Your task to perform on an android device: Go to Wikipedia Image 0: 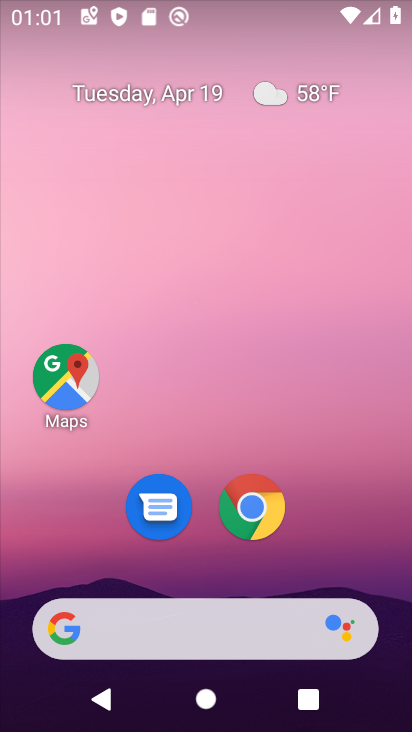
Step 0: click (255, 502)
Your task to perform on an android device: Go to Wikipedia Image 1: 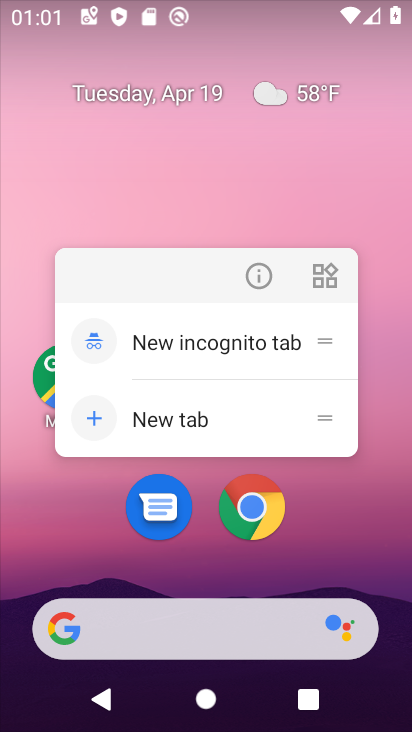
Step 1: click (262, 281)
Your task to perform on an android device: Go to Wikipedia Image 2: 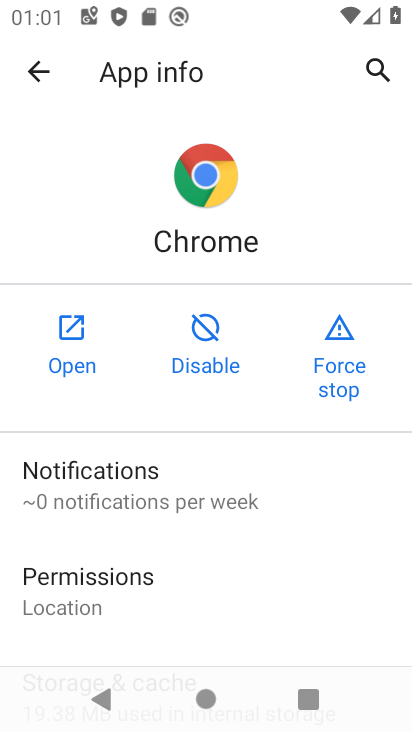
Step 2: click (65, 366)
Your task to perform on an android device: Go to Wikipedia Image 3: 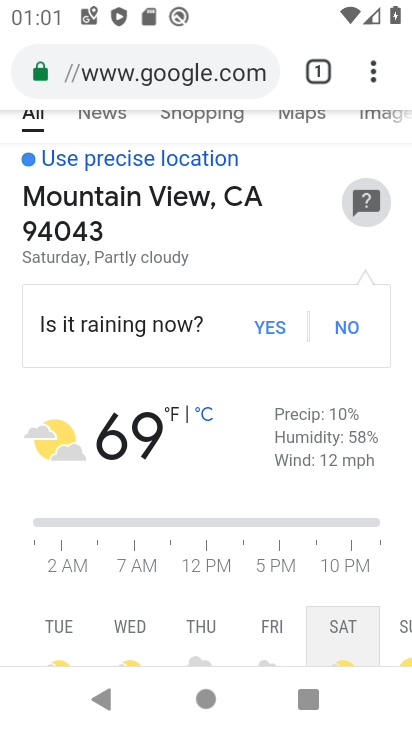
Step 3: click (183, 84)
Your task to perform on an android device: Go to Wikipedia Image 4: 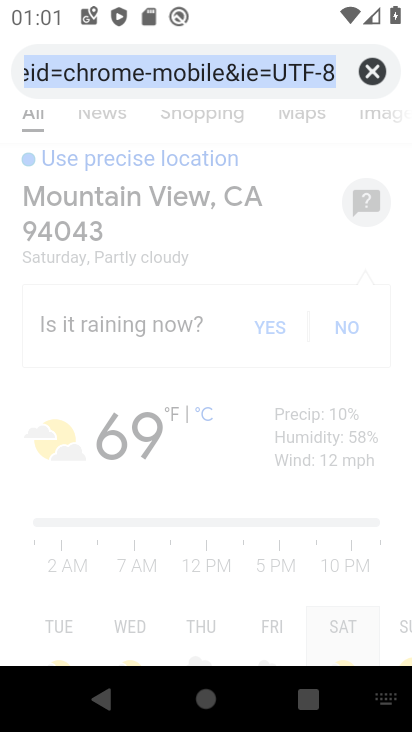
Step 4: type "wikipedia"
Your task to perform on an android device: Go to Wikipedia Image 5: 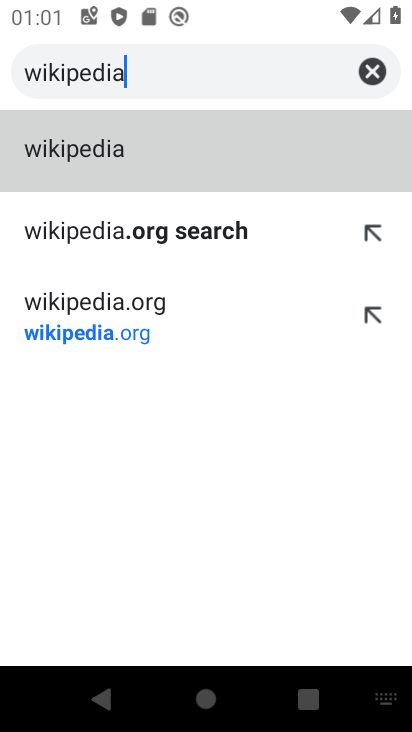
Step 5: click (67, 147)
Your task to perform on an android device: Go to Wikipedia Image 6: 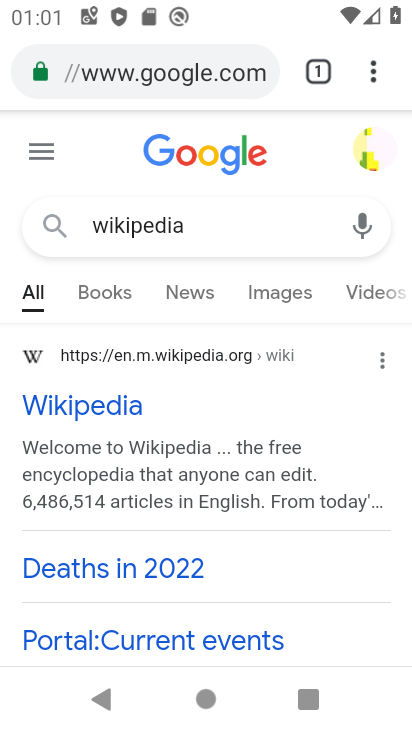
Step 6: task complete